Your task to perform on an android device: Open accessibility settings Image 0: 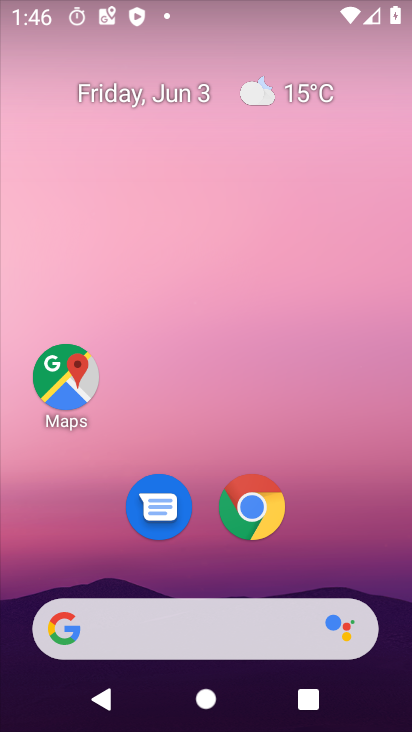
Step 0: drag from (397, 632) to (305, 39)
Your task to perform on an android device: Open accessibility settings Image 1: 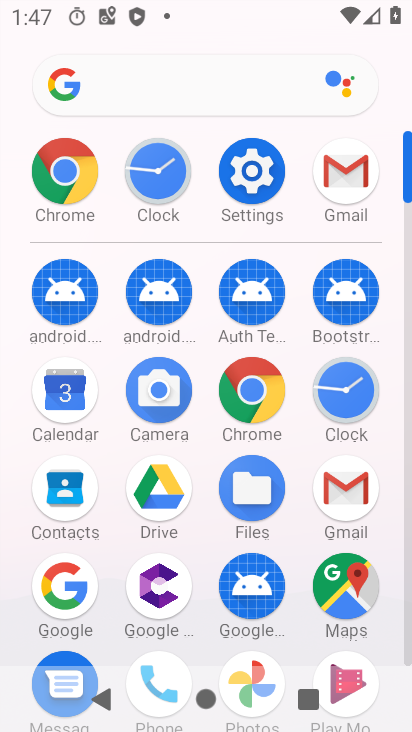
Step 1: click (245, 163)
Your task to perform on an android device: Open accessibility settings Image 2: 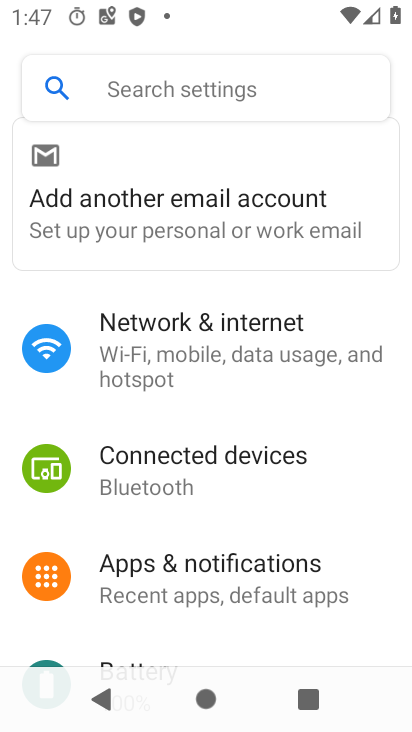
Step 2: drag from (216, 610) to (234, 150)
Your task to perform on an android device: Open accessibility settings Image 3: 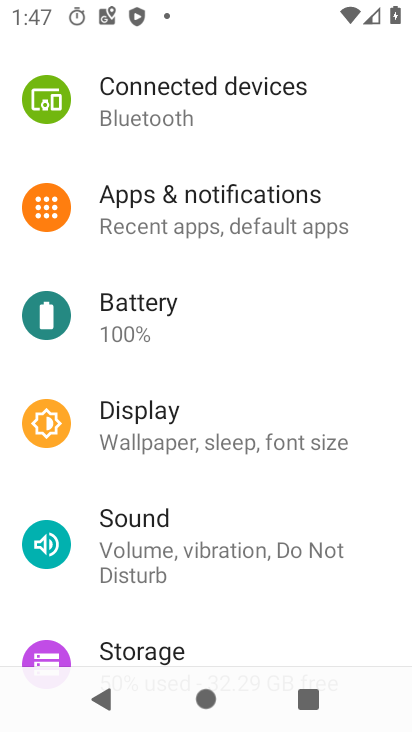
Step 3: drag from (254, 588) to (261, 163)
Your task to perform on an android device: Open accessibility settings Image 4: 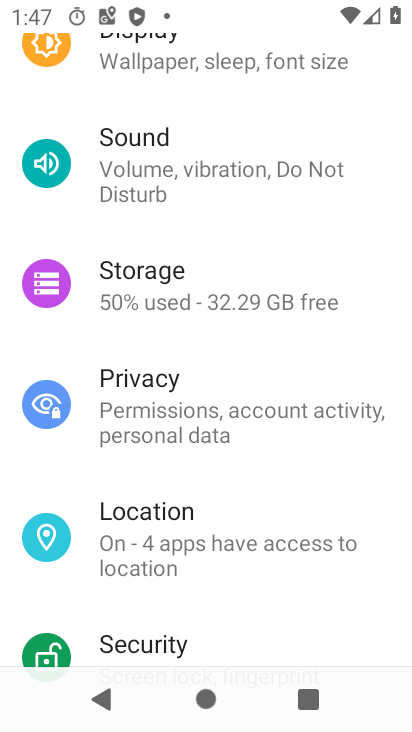
Step 4: drag from (235, 573) to (305, 185)
Your task to perform on an android device: Open accessibility settings Image 5: 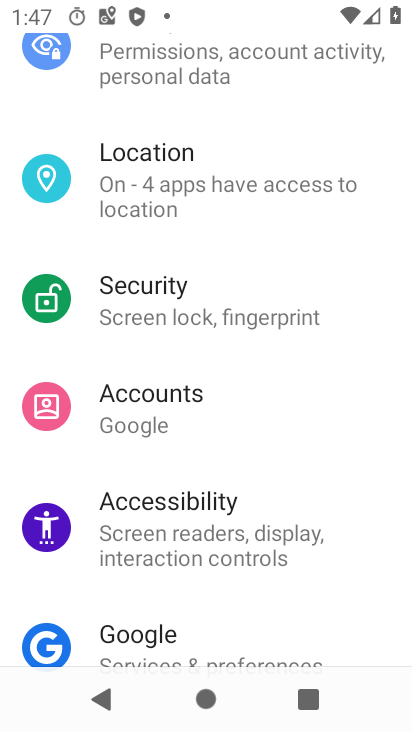
Step 5: click (227, 521)
Your task to perform on an android device: Open accessibility settings Image 6: 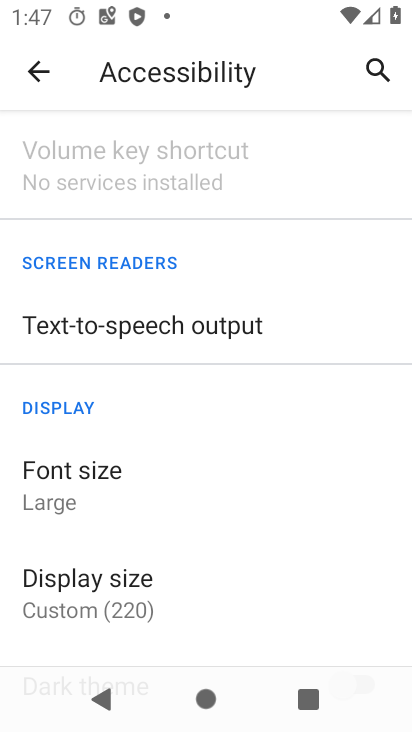
Step 6: task complete